Your task to perform on an android device: snooze an email in the gmail app Image 0: 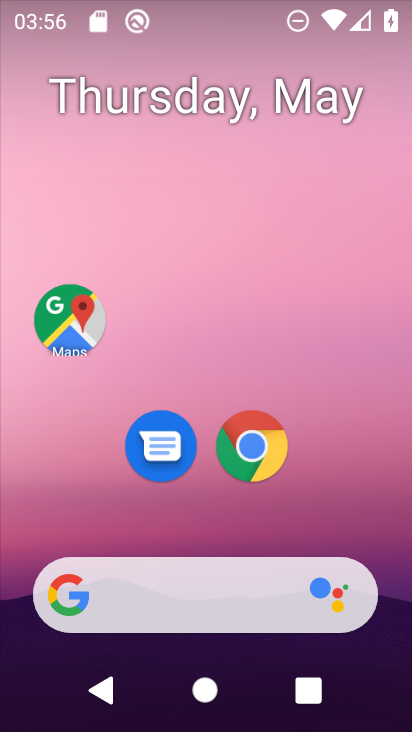
Step 0: drag from (333, 550) to (310, 21)
Your task to perform on an android device: snooze an email in the gmail app Image 1: 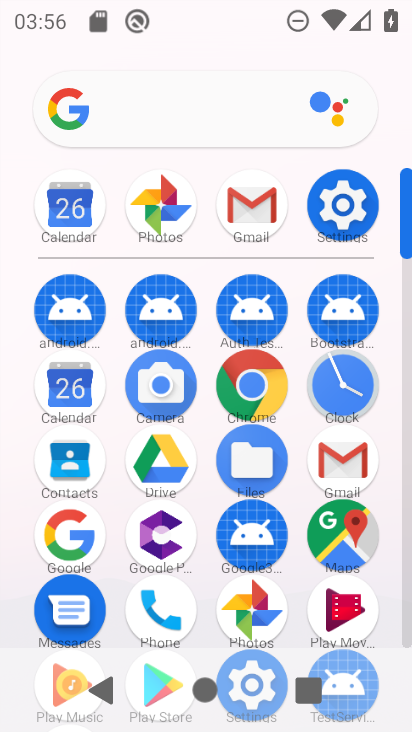
Step 1: click (249, 206)
Your task to perform on an android device: snooze an email in the gmail app Image 2: 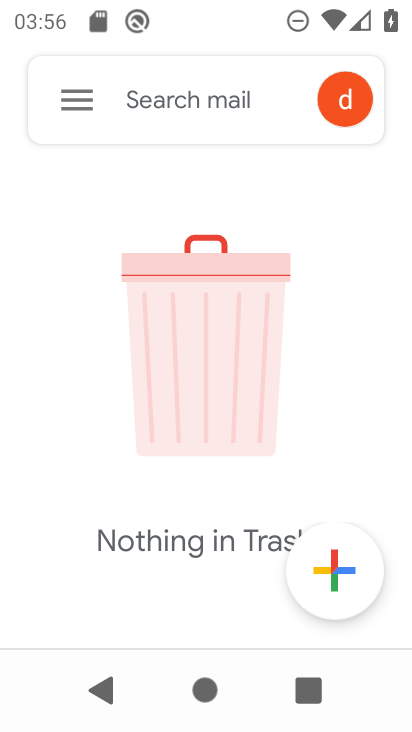
Step 2: click (69, 99)
Your task to perform on an android device: snooze an email in the gmail app Image 3: 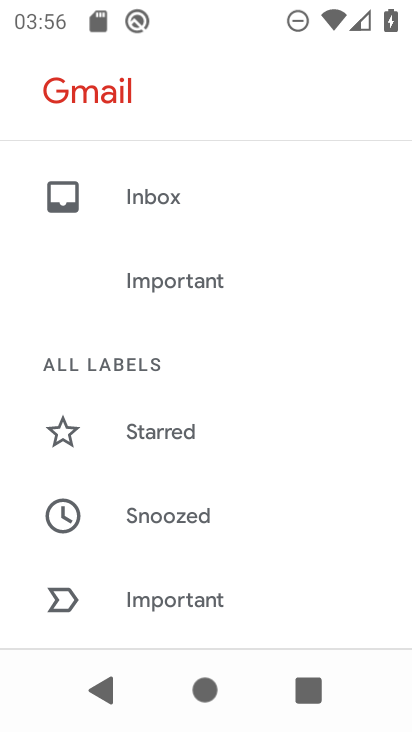
Step 3: drag from (211, 483) to (187, 101)
Your task to perform on an android device: snooze an email in the gmail app Image 4: 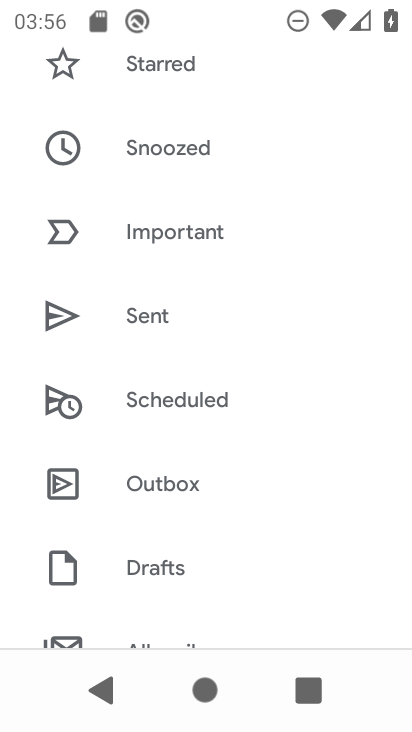
Step 4: drag from (219, 450) to (168, 114)
Your task to perform on an android device: snooze an email in the gmail app Image 5: 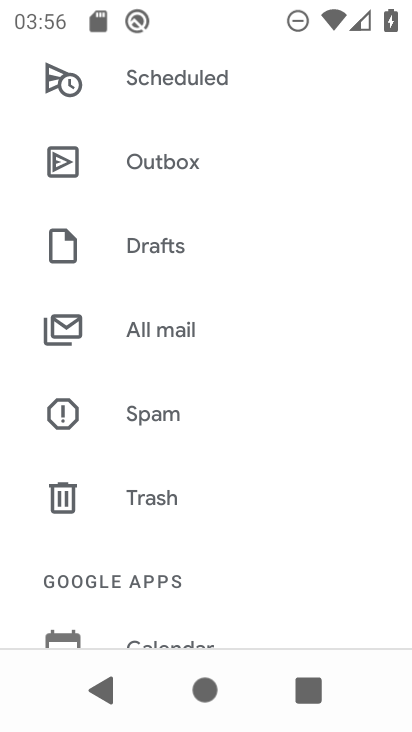
Step 5: click (161, 321)
Your task to perform on an android device: snooze an email in the gmail app Image 6: 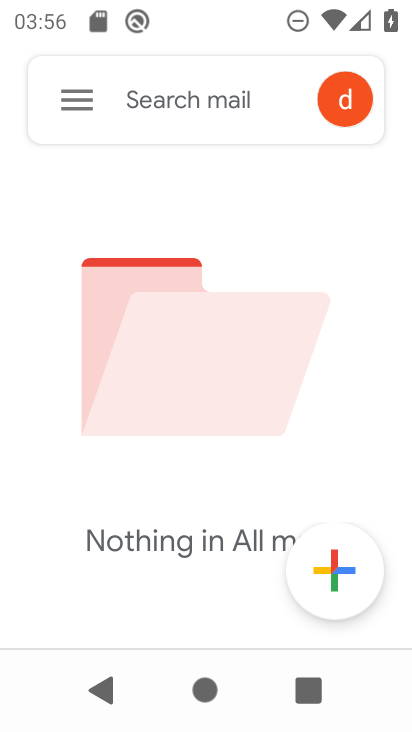
Step 6: task complete